Your task to perform on an android device: Is it going to rain today? Image 0: 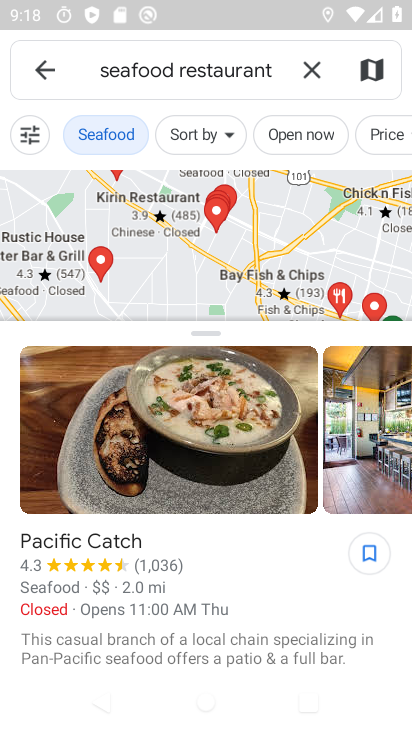
Step 0: press home button
Your task to perform on an android device: Is it going to rain today? Image 1: 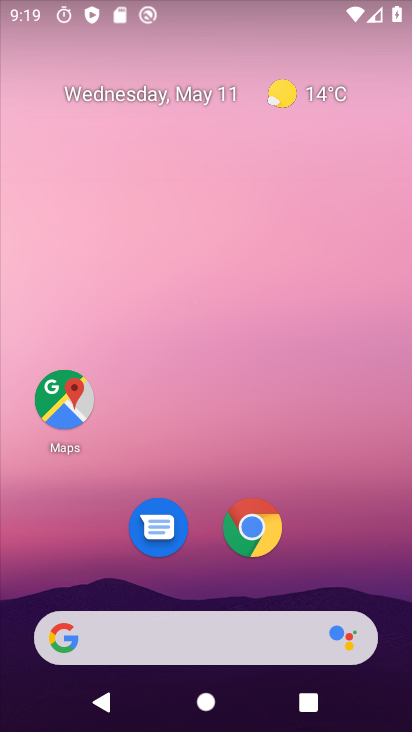
Step 1: drag from (298, 562) to (298, 124)
Your task to perform on an android device: Is it going to rain today? Image 2: 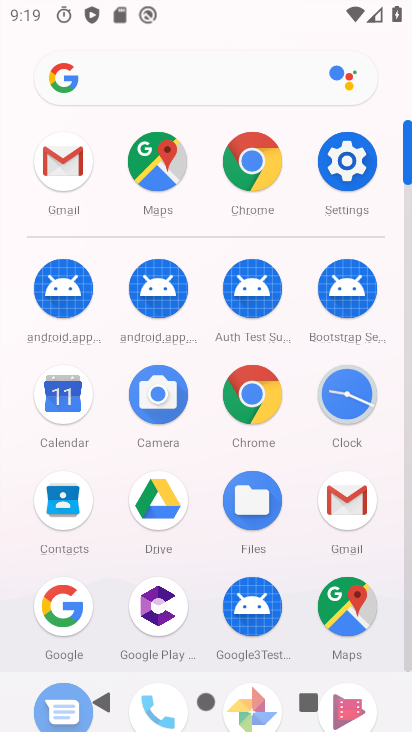
Step 2: click (71, 600)
Your task to perform on an android device: Is it going to rain today? Image 3: 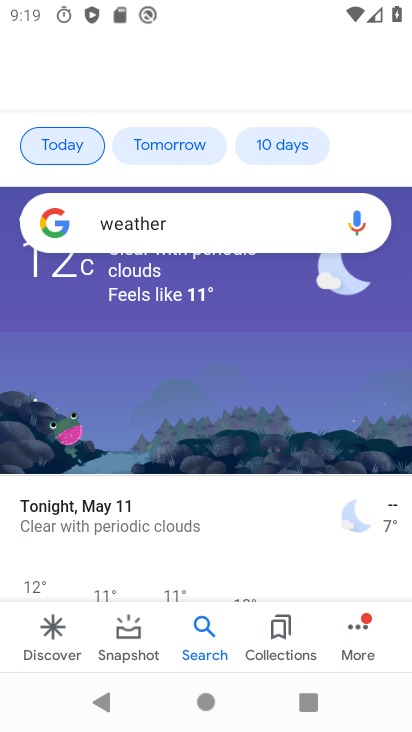
Step 3: drag from (205, 343) to (187, 648)
Your task to perform on an android device: Is it going to rain today? Image 4: 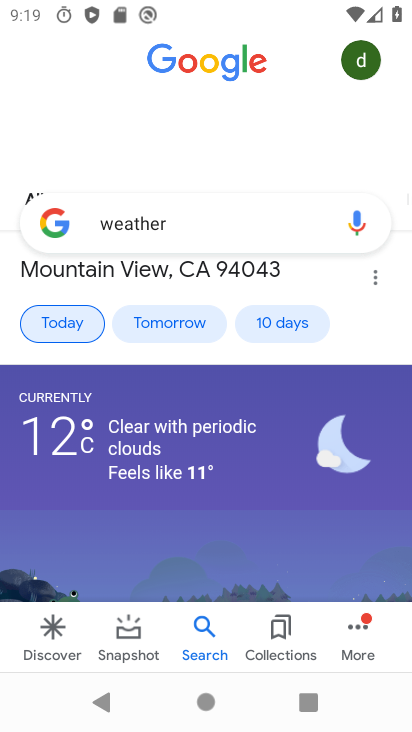
Step 4: click (212, 230)
Your task to perform on an android device: Is it going to rain today? Image 5: 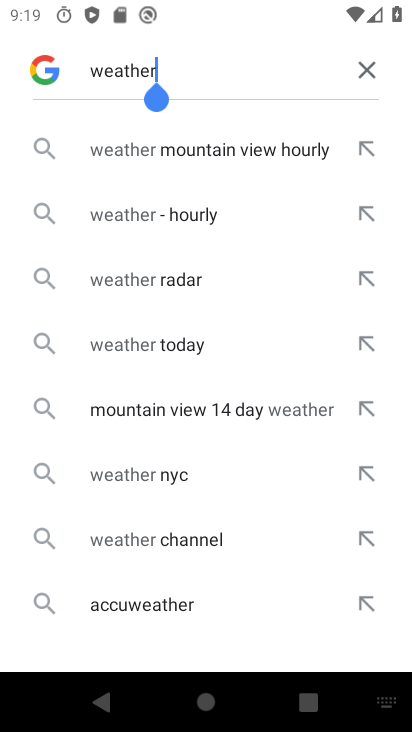
Step 5: click (226, 338)
Your task to perform on an android device: Is it going to rain today? Image 6: 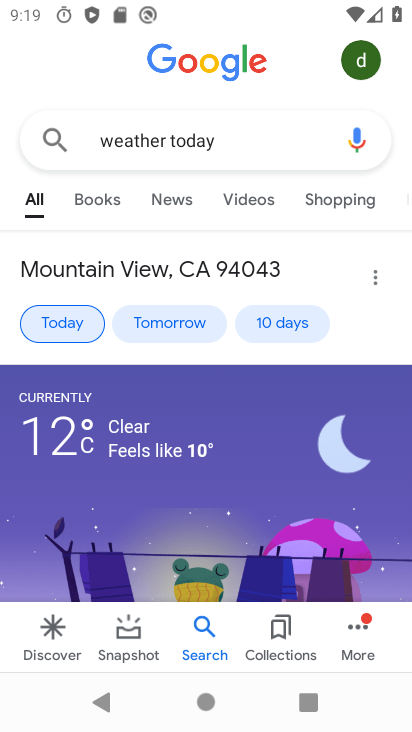
Step 6: task complete